Your task to perform on an android device: add a contact in the contacts app Image 0: 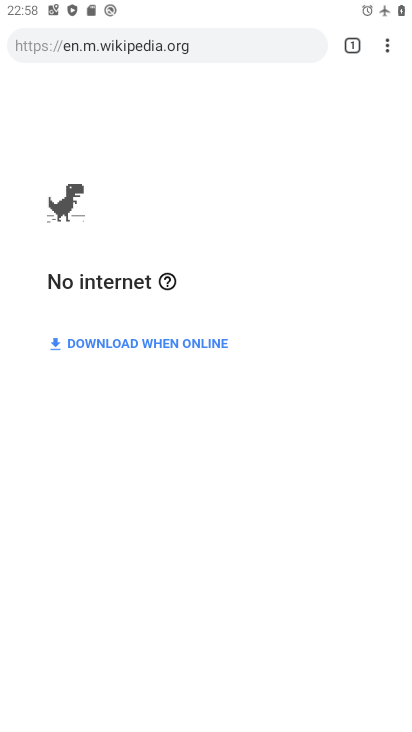
Step 0: drag from (188, 626) to (193, 198)
Your task to perform on an android device: add a contact in the contacts app Image 1: 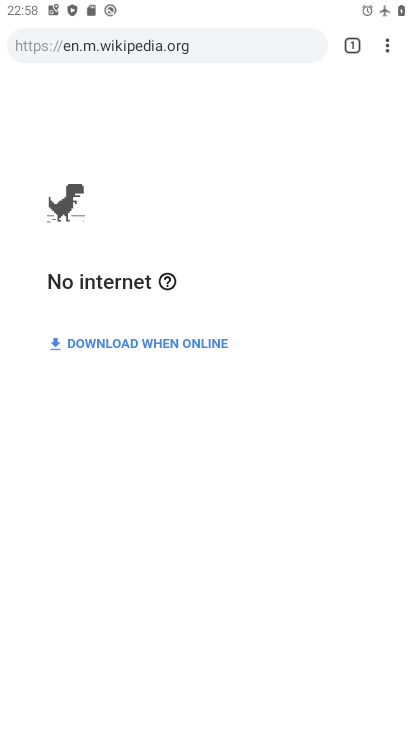
Step 1: press home button
Your task to perform on an android device: add a contact in the contacts app Image 2: 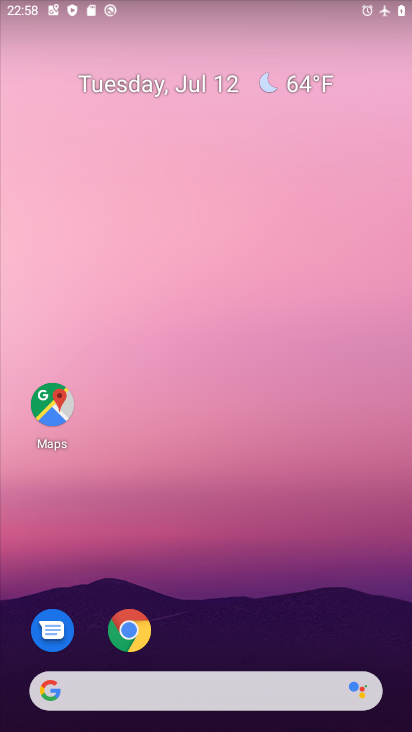
Step 2: drag from (215, 646) to (234, 27)
Your task to perform on an android device: add a contact in the contacts app Image 3: 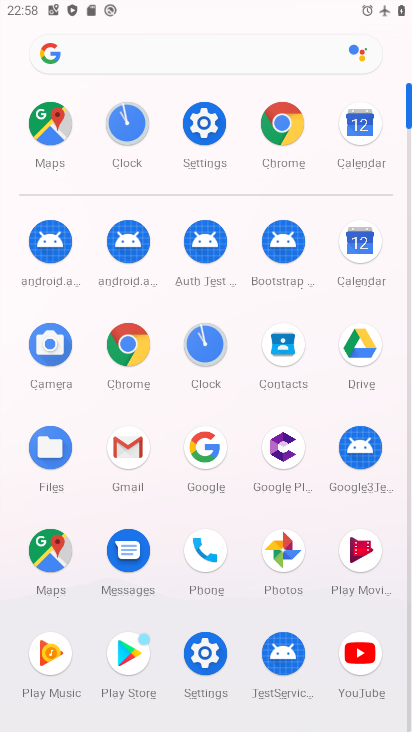
Step 3: click (208, 563)
Your task to perform on an android device: add a contact in the contacts app Image 4: 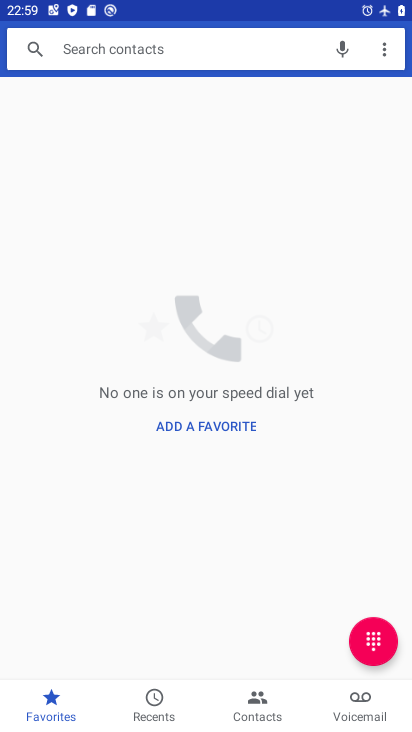
Step 4: click (272, 700)
Your task to perform on an android device: add a contact in the contacts app Image 5: 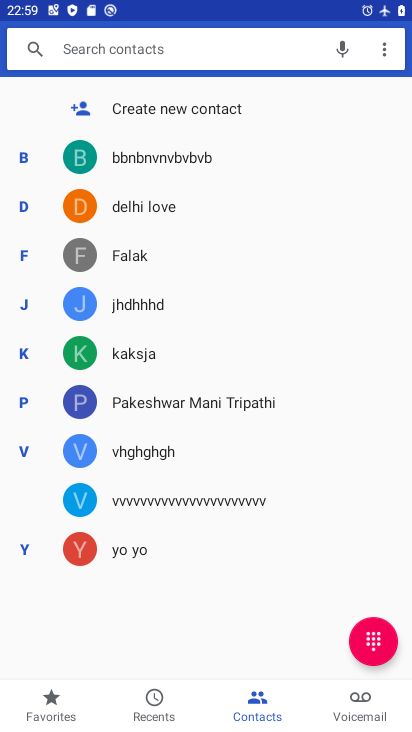
Step 5: click (145, 116)
Your task to perform on an android device: add a contact in the contacts app Image 6: 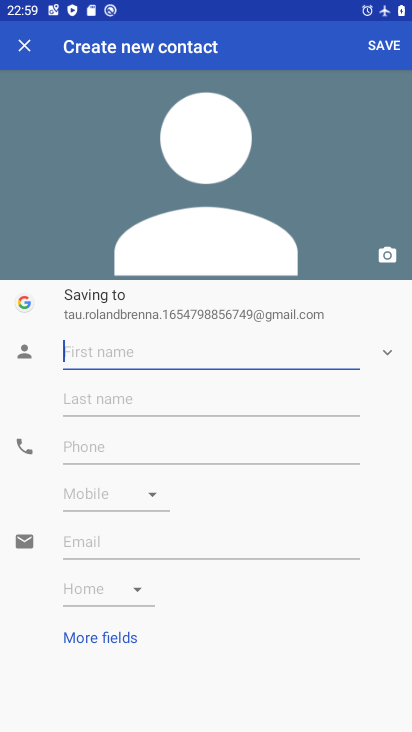
Step 6: type " app"
Your task to perform on an android device: add a contact in the contacts app Image 7: 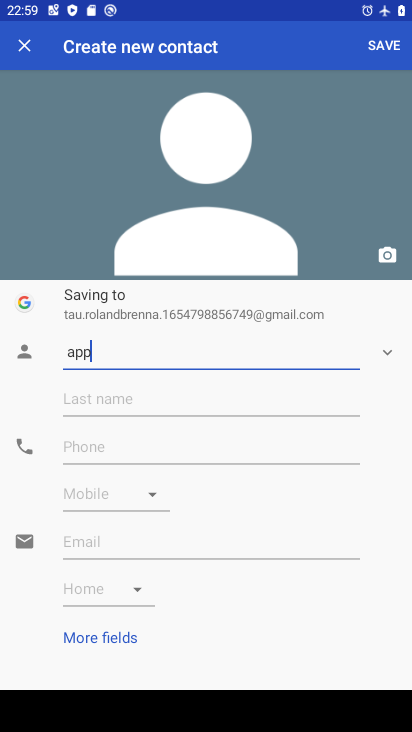
Step 7: type ""
Your task to perform on an android device: add a contact in the contacts app Image 8: 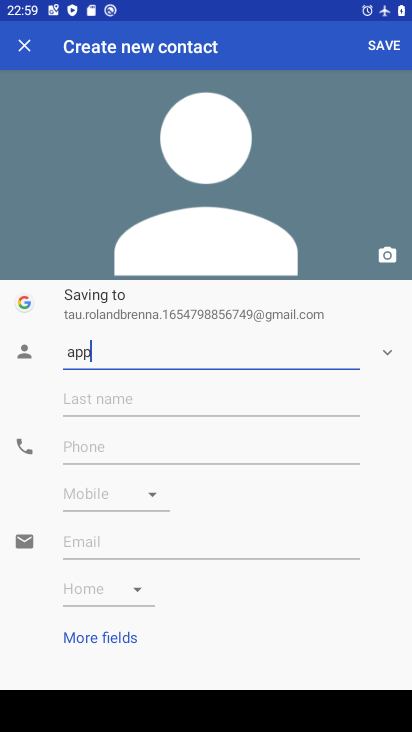
Step 8: click (94, 452)
Your task to perform on an android device: add a contact in the contacts app Image 9: 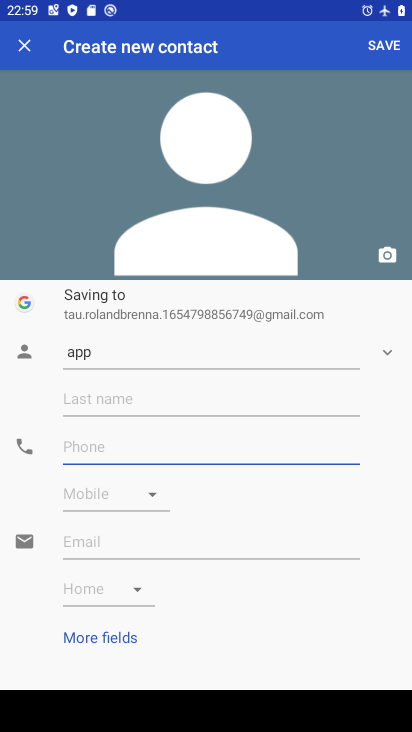
Step 9: task complete